Your task to perform on an android device: What's the weather today? Image 0: 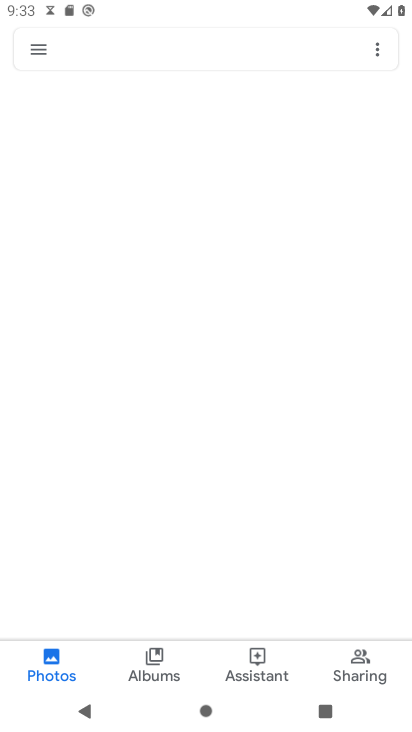
Step 0: press home button
Your task to perform on an android device: What's the weather today? Image 1: 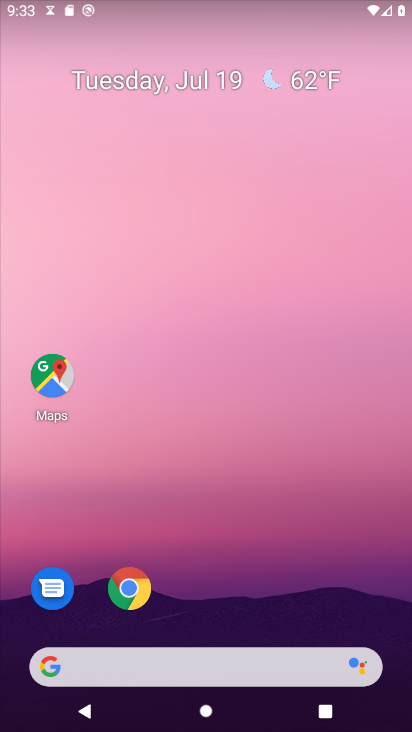
Step 1: drag from (200, 605) to (192, 105)
Your task to perform on an android device: What's the weather today? Image 2: 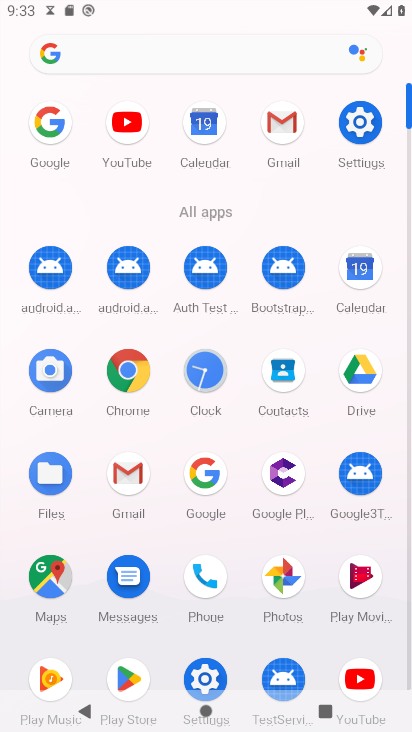
Step 2: click (210, 476)
Your task to perform on an android device: What's the weather today? Image 3: 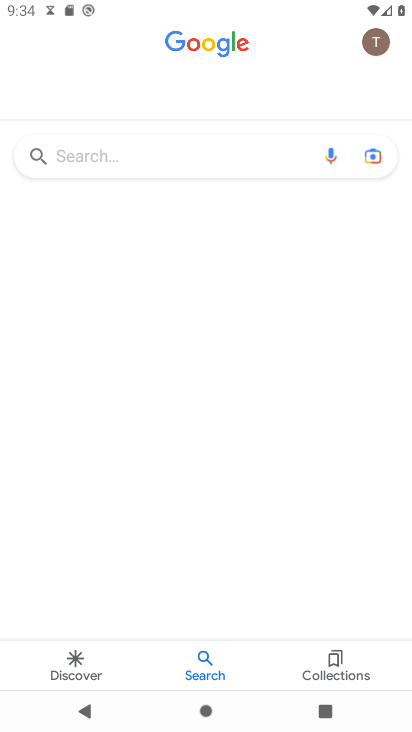
Step 3: click (124, 168)
Your task to perform on an android device: What's the weather today? Image 4: 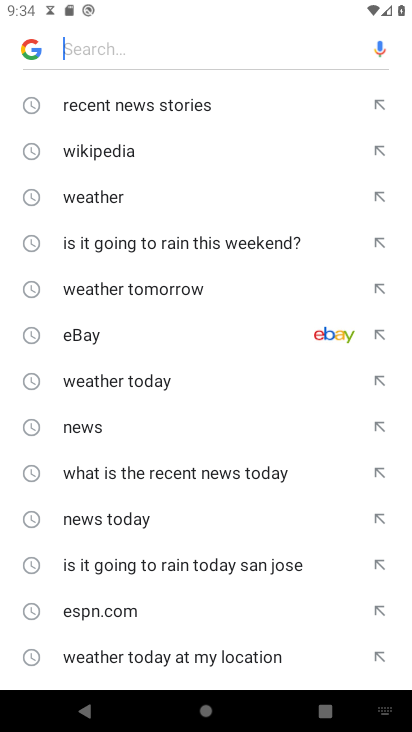
Step 4: click (87, 201)
Your task to perform on an android device: What's the weather today? Image 5: 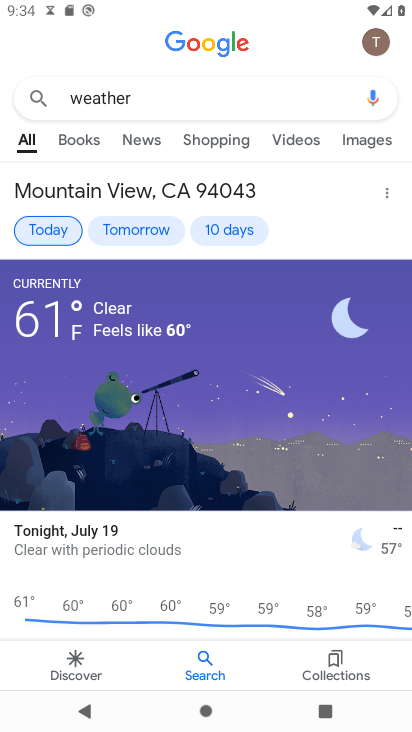
Step 5: task complete